Your task to perform on an android device: Do I have any events tomorrow? Image 0: 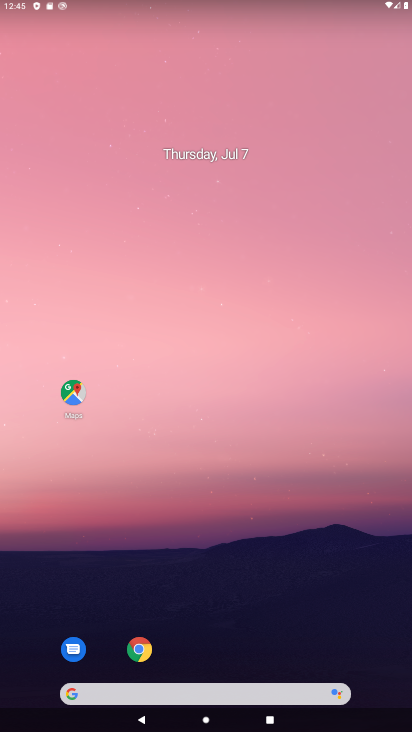
Step 0: click (229, 553)
Your task to perform on an android device: Do I have any events tomorrow? Image 1: 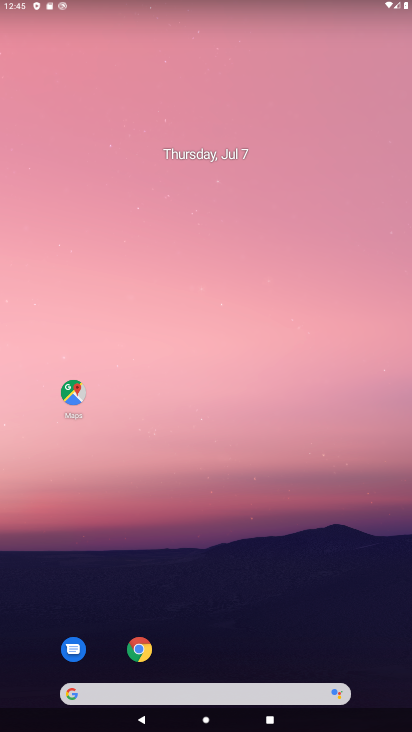
Step 1: drag from (209, 659) to (67, 163)
Your task to perform on an android device: Do I have any events tomorrow? Image 2: 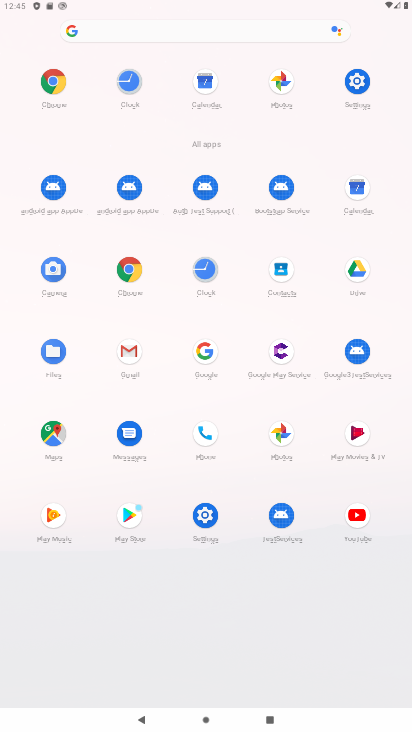
Step 2: click (361, 185)
Your task to perform on an android device: Do I have any events tomorrow? Image 3: 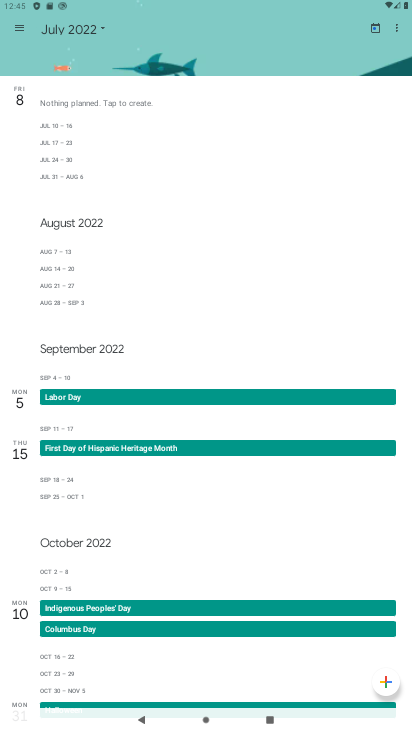
Step 3: press back button
Your task to perform on an android device: Do I have any events tomorrow? Image 4: 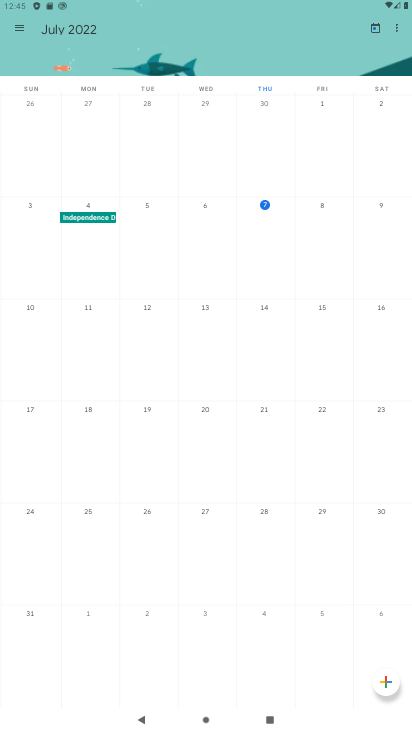
Step 4: click (313, 215)
Your task to perform on an android device: Do I have any events tomorrow? Image 5: 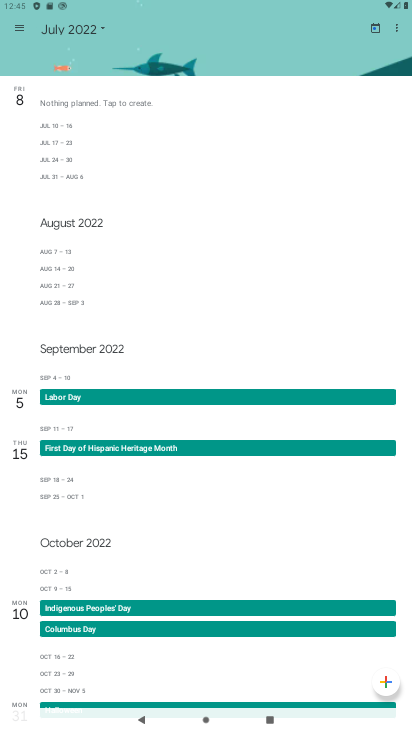
Step 5: task complete